Your task to perform on an android device: When is my next appointment? Image 0: 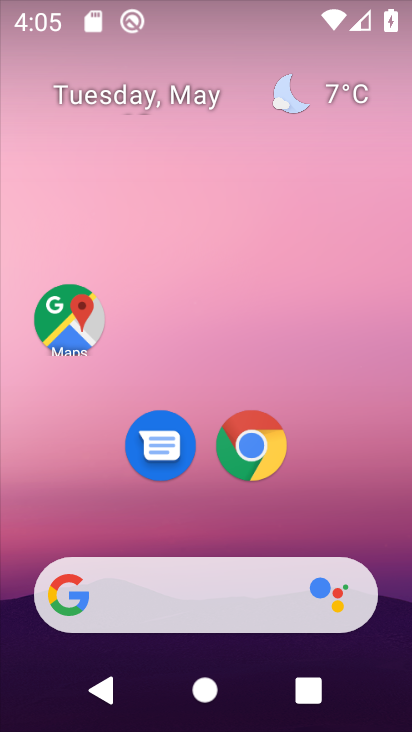
Step 0: drag from (236, 533) to (276, 10)
Your task to perform on an android device: When is my next appointment? Image 1: 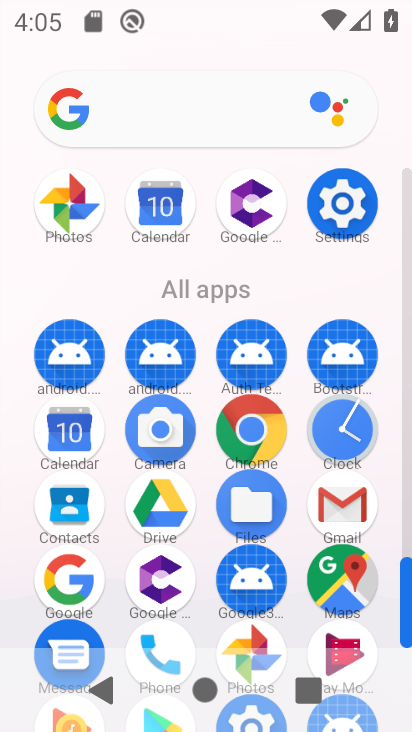
Step 1: click (68, 451)
Your task to perform on an android device: When is my next appointment? Image 2: 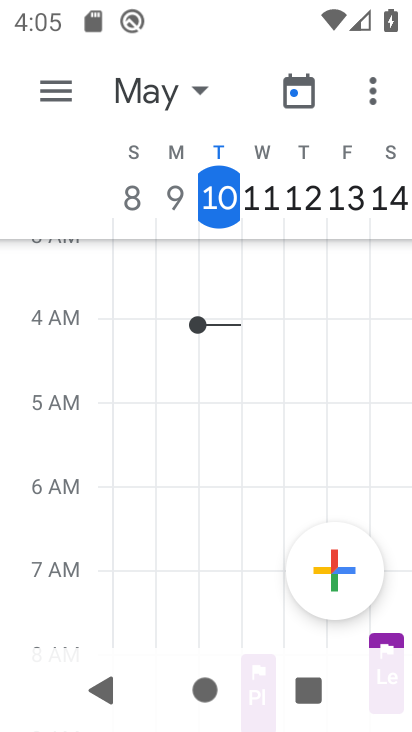
Step 2: click (65, 95)
Your task to perform on an android device: When is my next appointment? Image 3: 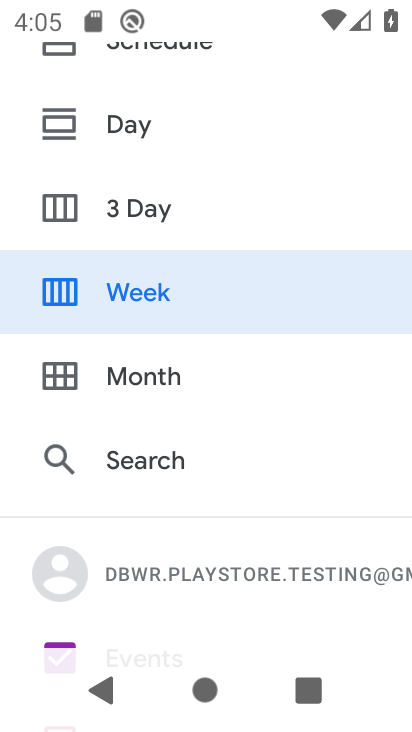
Step 3: drag from (147, 120) to (151, 435)
Your task to perform on an android device: When is my next appointment? Image 4: 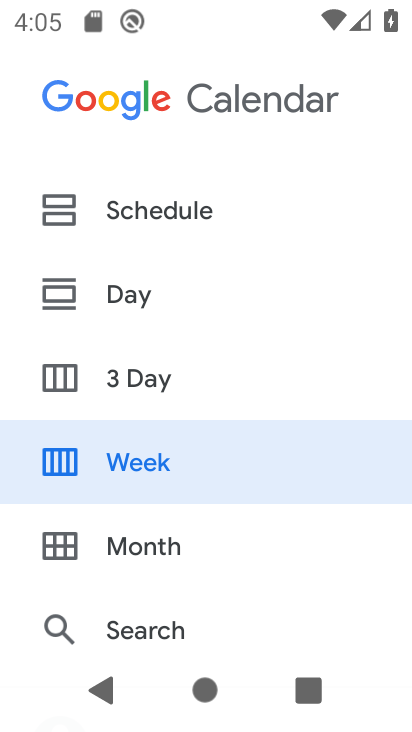
Step 4: click (167, 224)
Your task to perform on an android device: When is my next appointment? Image 5: 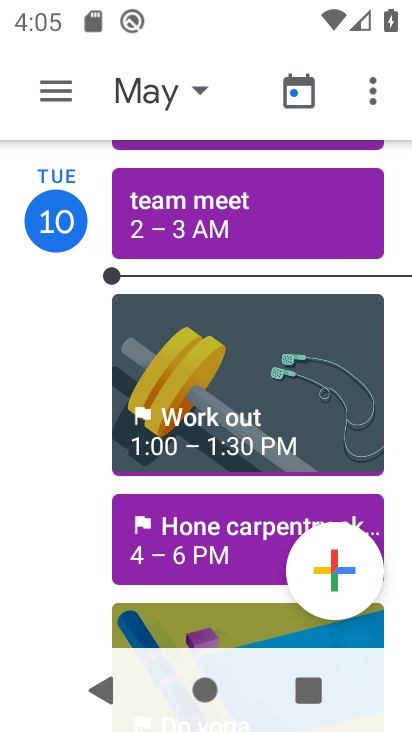
Step 5: task complete